Your task to perform on an android device: Search for Mexican restaurants on Maps Image 0: 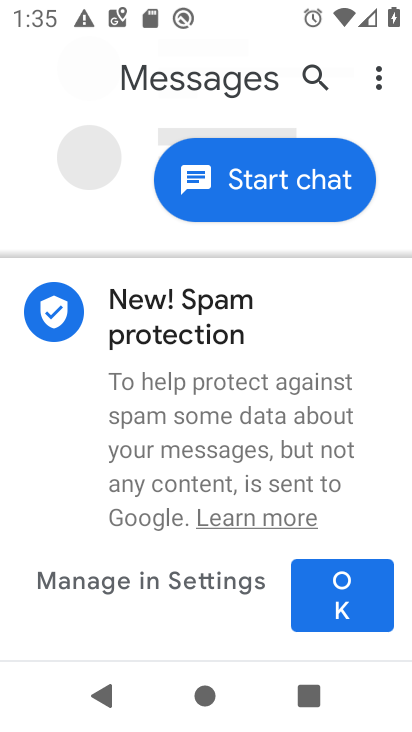
Step 0: press back button
Your task to perform on an android device: Search for Mexican restaurants on Maps Image 1: 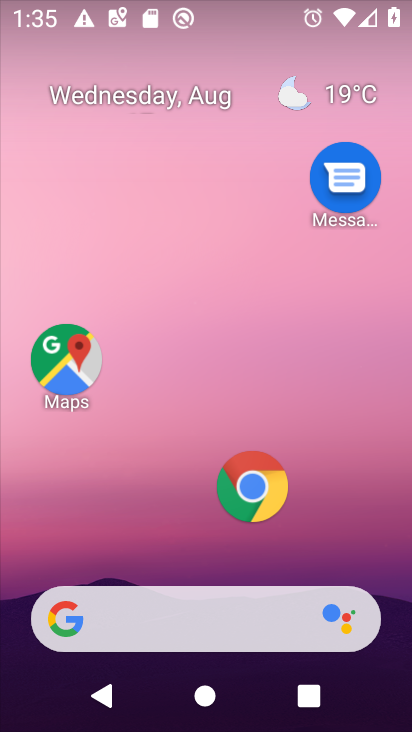
Step 1: click (71, 369)
Your task to perform on an android device: Search for Mexican restaurants on Maps Image 2: 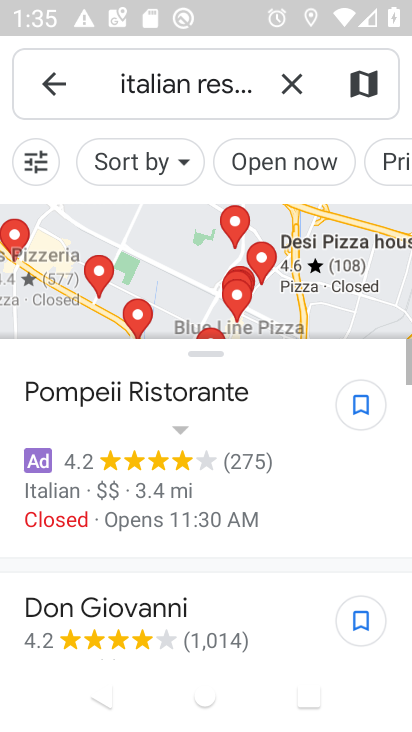
Step 2: click (269, 97)
Your task to perform on an android device: Search for Mexican restaurants on Maps Image 3: 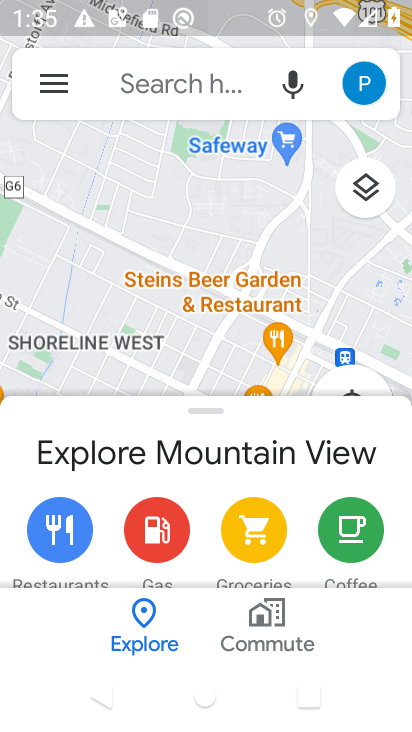
Step 3: click (176, 86)
Your task to perform on an android device: Search for Mexican restaurants on Maps Image 4: 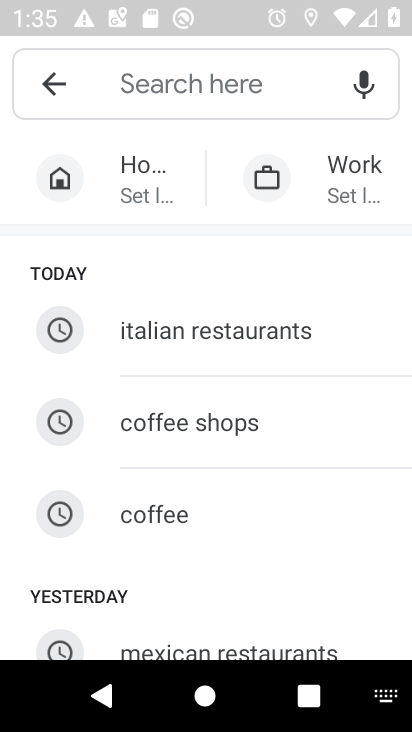
Step 4: click (188, 637)
Your task to perform on an android device: Search for Mexican restaurants on Maps Image 5: 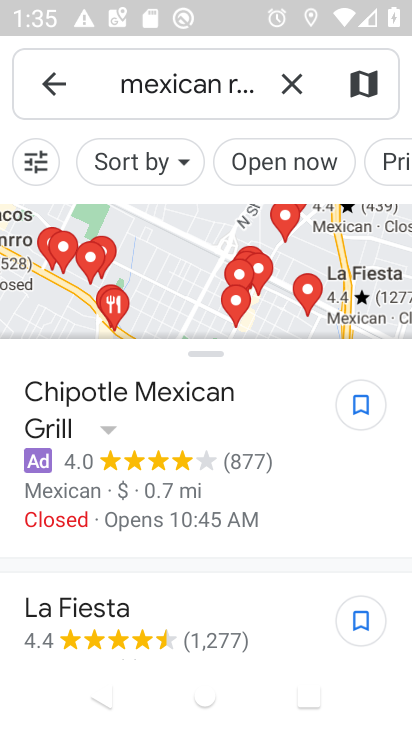
Step 5: task complete